Your task to perform on an android device: What's the weather? Image 0: 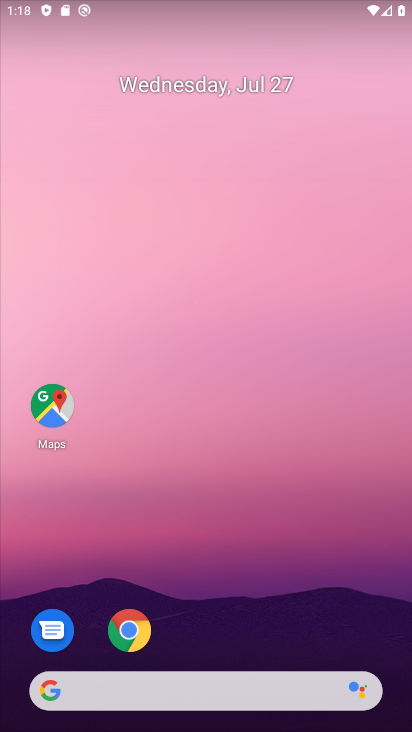
Step 0: drag from (222, 676) to (178, 106)
Your task to perform on an android device: What's the weather? Image 1: 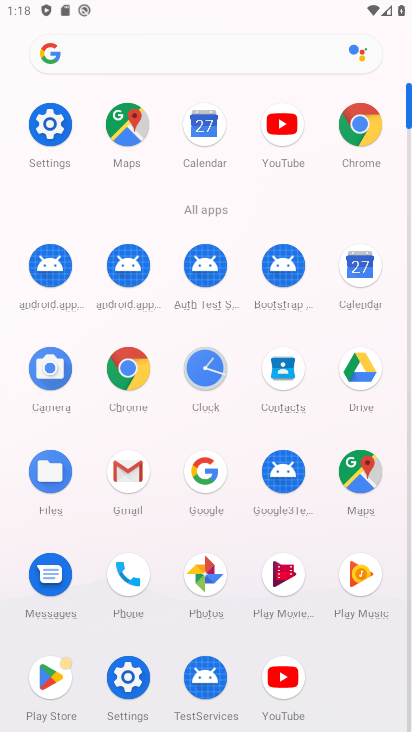
Step 1: click (128, 379)
Your task to perform on an android device: What's the weather? Image 2: 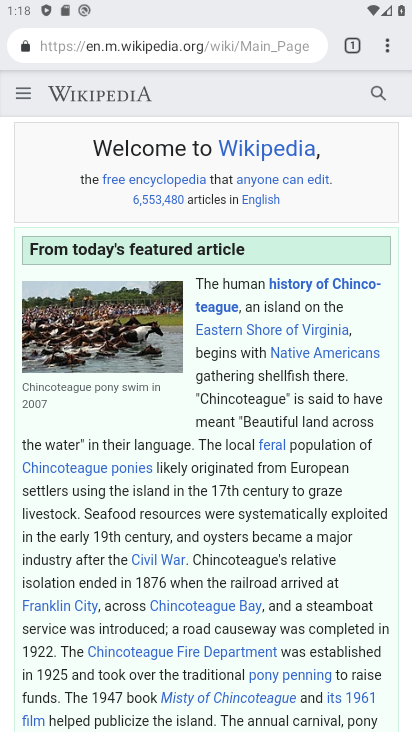
Step 2: click (192, 45)
Your task to perform on an android device: What's the weather? Image 3: 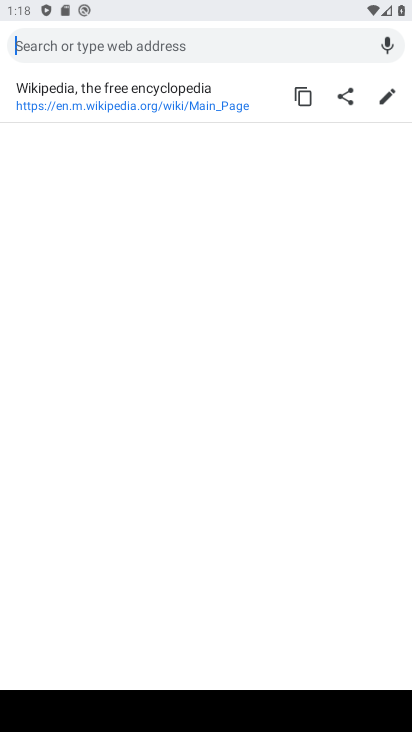
Step 3: type "weather"
Your task to perform on an android device: What's the weather? Image 4: 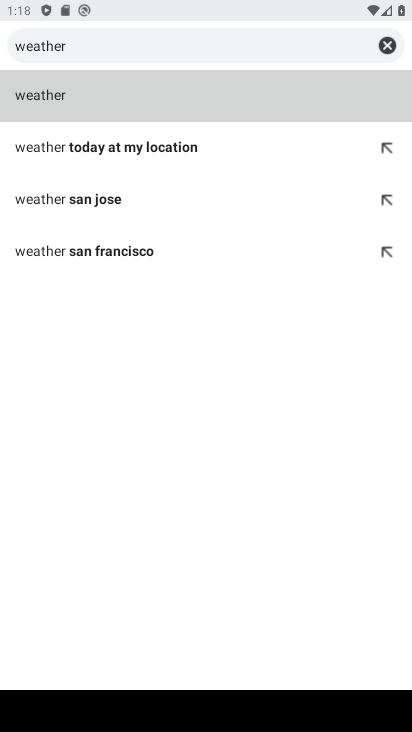
Step 4: click (54, 101)
Your task to perform on an android device: What's the weather? Image 5: 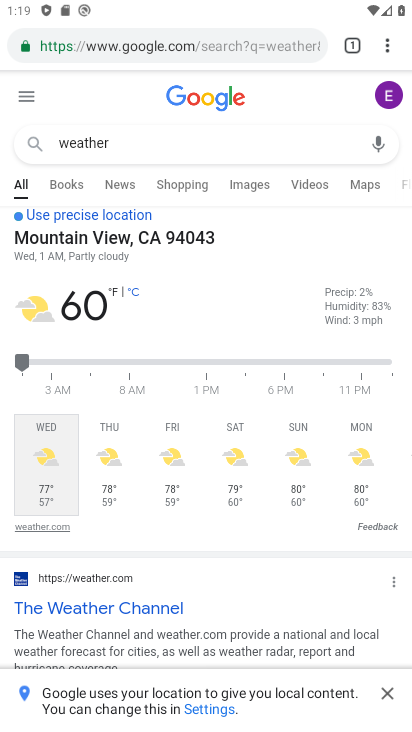
Step 5: task complete